Your task to perform on an android device: turn on javascript in the chrome app Image 0: 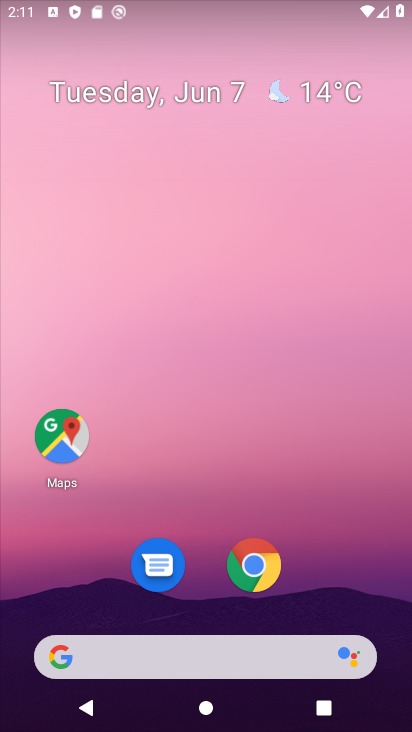
Step 0: drag from (179, 675) to (181, 7)
Your task to perform on an android device: turn on javascript in the chrome app Image 1: 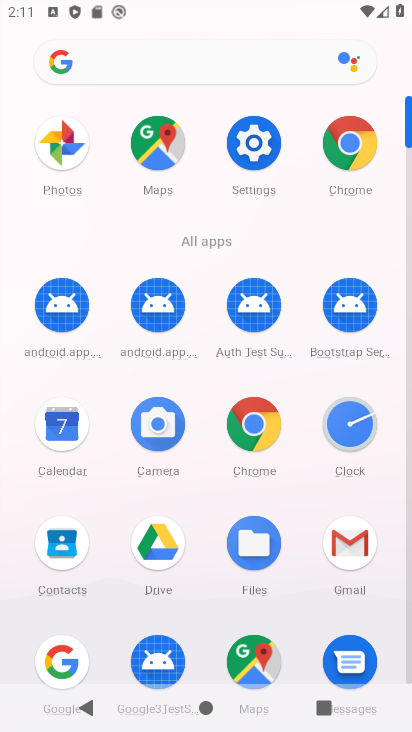
Step 1: click (245, 420)
Your task to perform on an android device: turn on javascript in the chrome app Image 2: 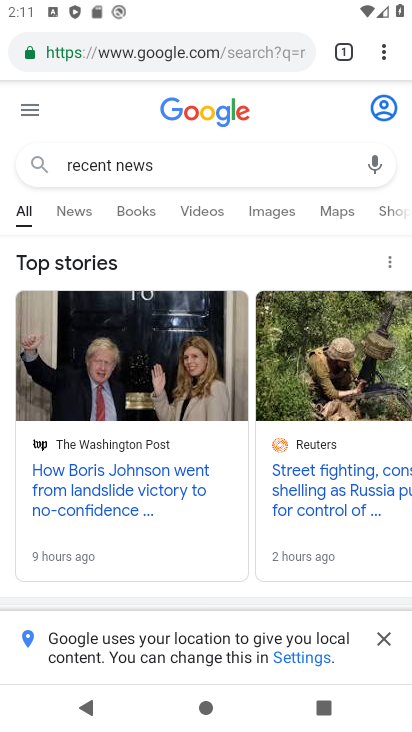
Step 2: drag from (377, 52) to (219, 576)
Your task to perform on an android device: turn on javascript in the chrome app Image 3: 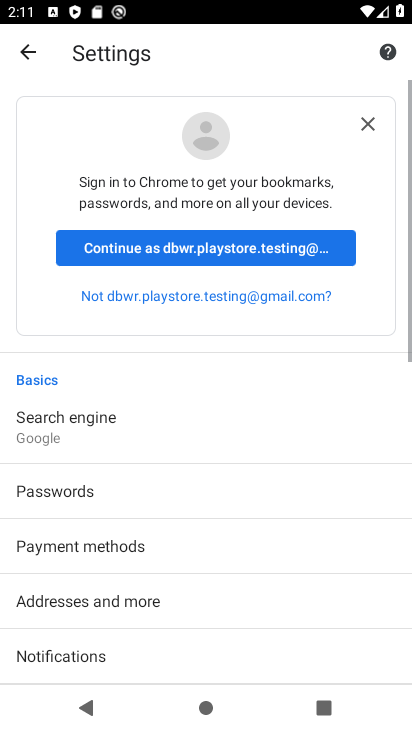
Step 3: drag from (182, 646) to (205, 107)
Your task to perform on an android device: turn on javascript in the chrome app Image 4: 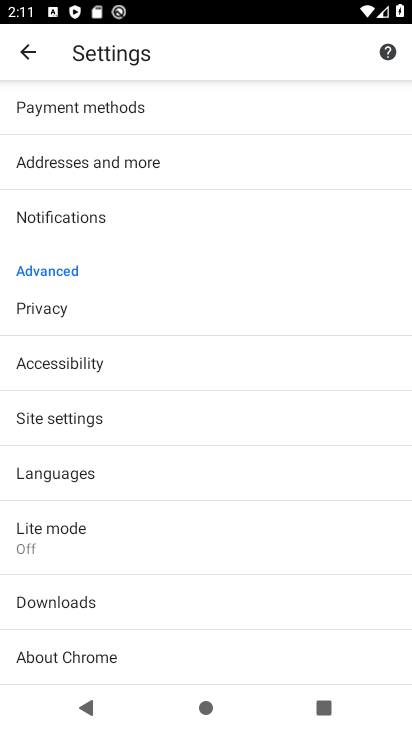
Step 4: click (145, 413)
Your task to perform on an android device: turn on javascript in the chrome app Image 5: 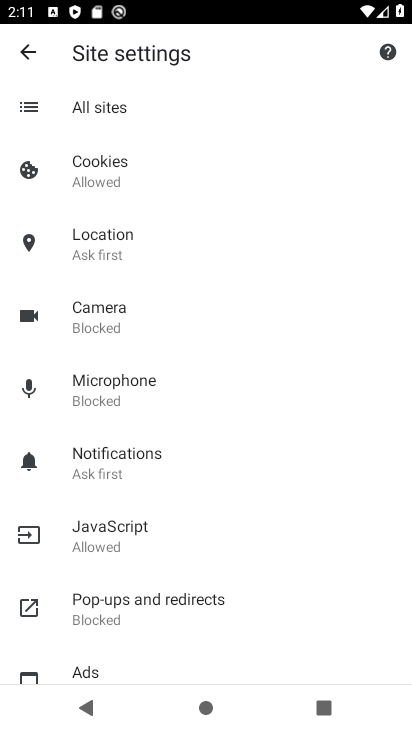
Step 5: click (140, 524)
Your task to perform on an android device: turn on javascript in the chrome app Image 6: 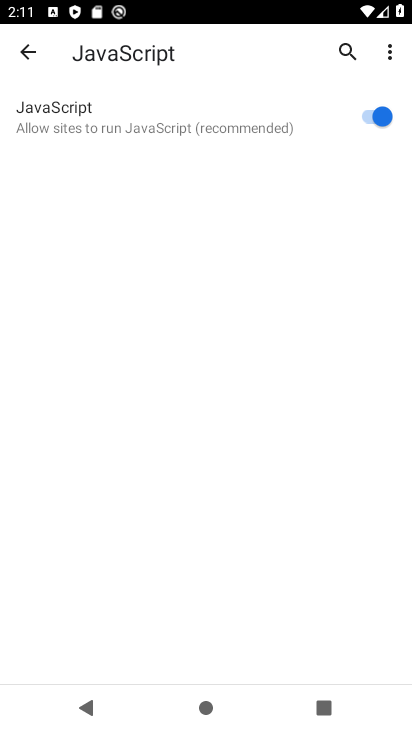
Step 6: task complete